Your task to perform on an android device: Go to privacy settings Image 0: 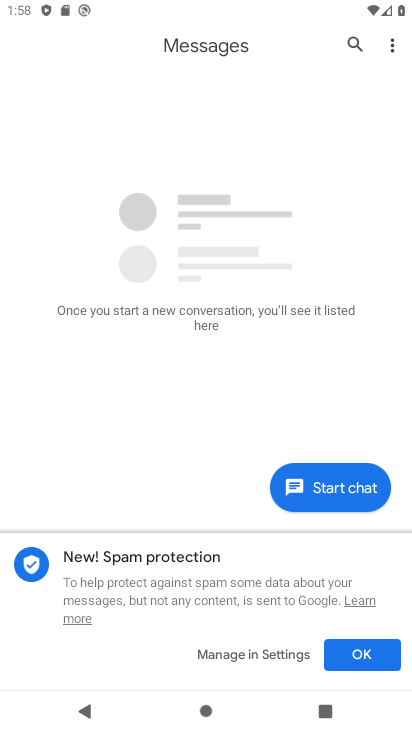
Step 0: press home button
Your task to perform on an android device: Go to privacy settings Image 1: 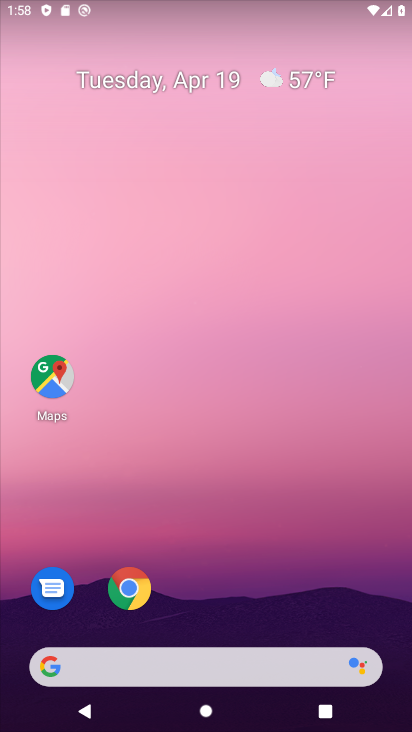
Step 1: click (132, 591)
Your task to perform on an android device: Go to privacy settings Image 2: 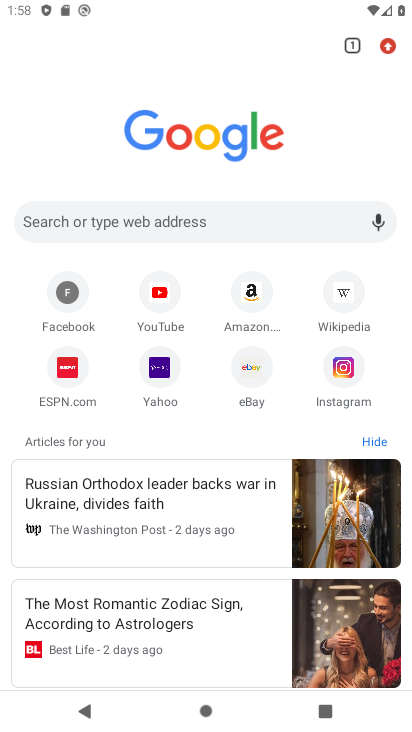
Step 2: click (385, 39)
Your task to perform on an android device: Go to privacy settings Image 3: 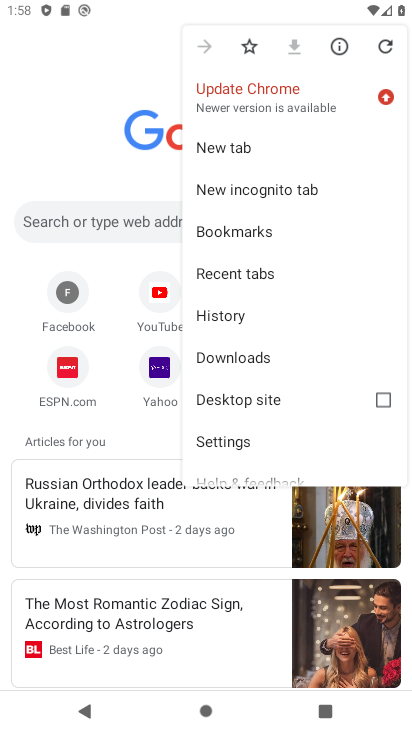
Step 3: click (277, 447)
Your task to perform on an android device: Go to privacy settings Image 4: 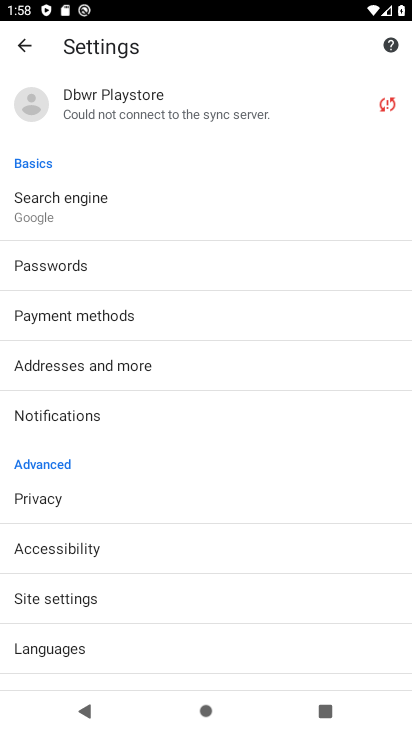
Step 4: click (163, 502)
Your task to perform on an android device: Go to privacy settings Image 5: 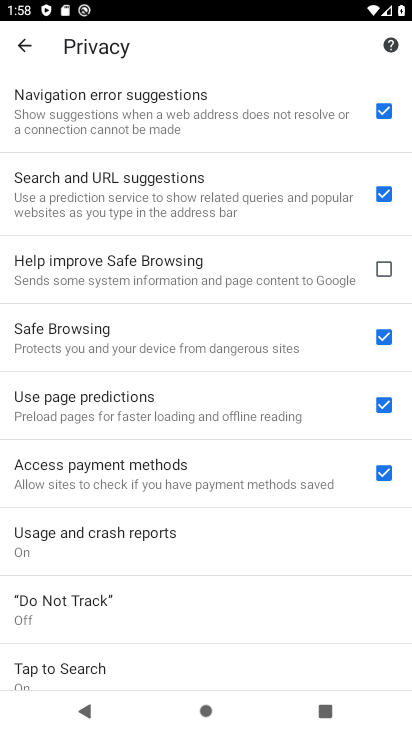
Step 5: task complete